Your task to perform on an android device: Open sound settings Image 0: 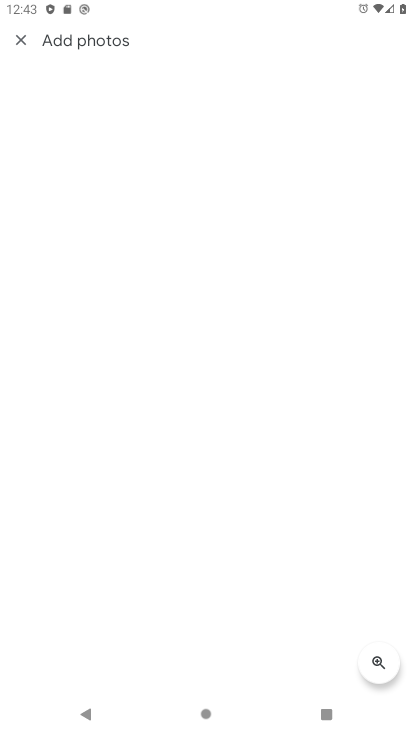
Step 0: press back button
Your task to perform on an android device: Open sound settings Image 1: 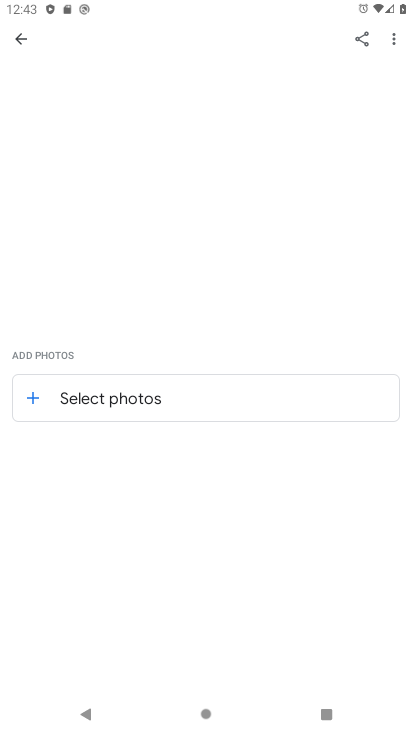
Step 1: press back button
Your task to perform on an android device: Open sound settings Image 2: 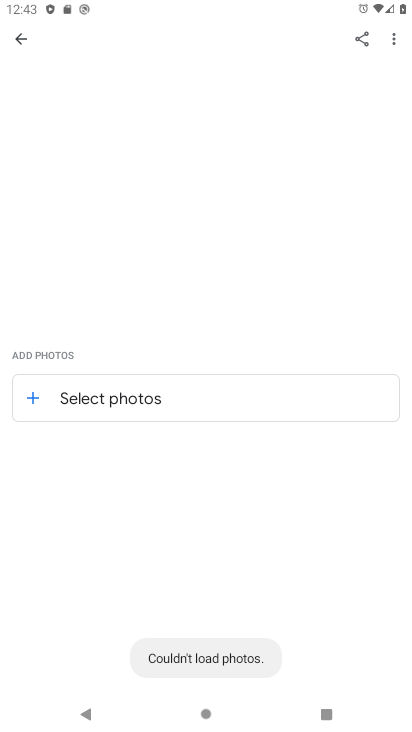
Step 2: press back button
Your task to perform on an android device: Open sound settings Image 3: 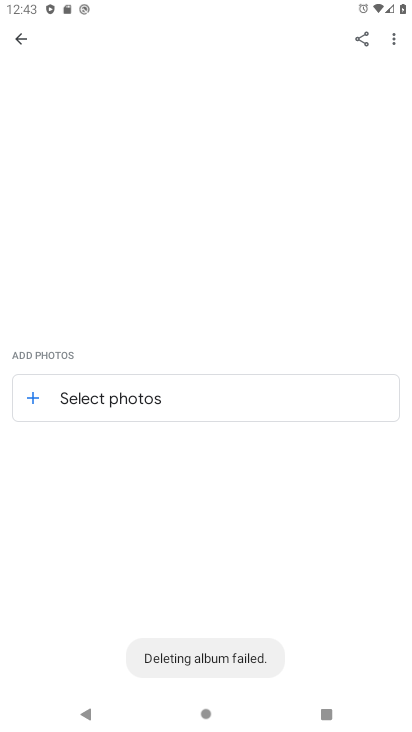
Step 3: press home button
Your task to perform on an android device: Open sound settings Image 4: 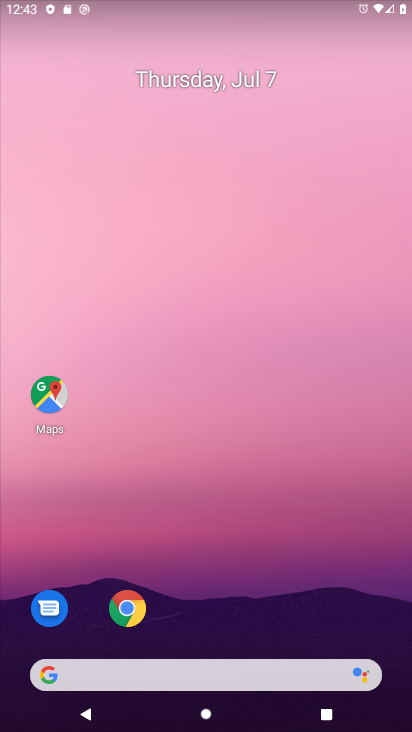
Step 4: drag from (180, 613) to (231, 77)
Your task to perform on an android device: Open sound settings Image 5: 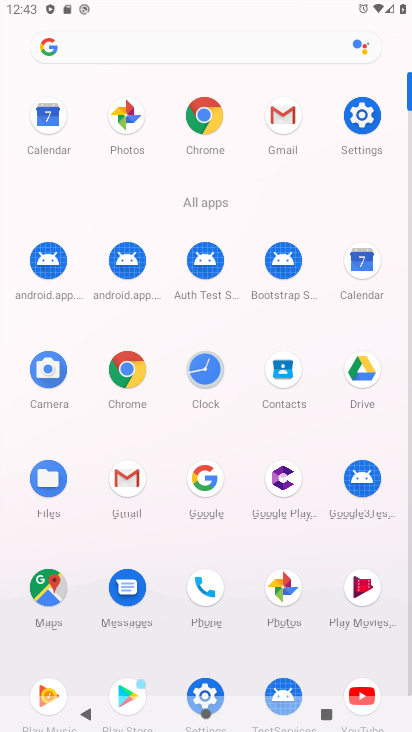
Step 5: click (355, 125)
Your task to perform on an android device: Open sound settings Image 6: 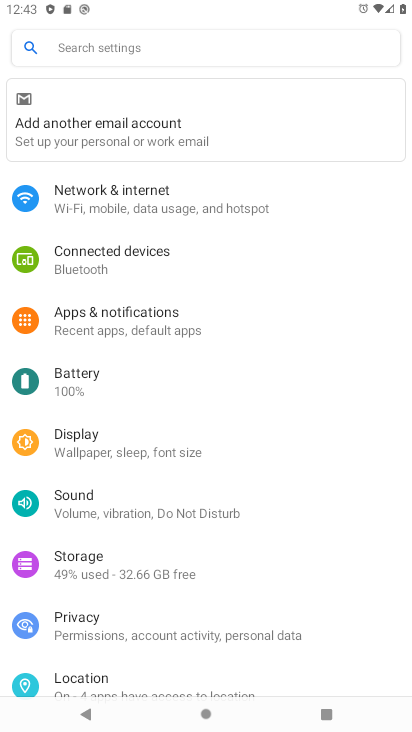
Step 6: click (88, 492)
Your task to perform on an android device: Open sound settings Image 7: 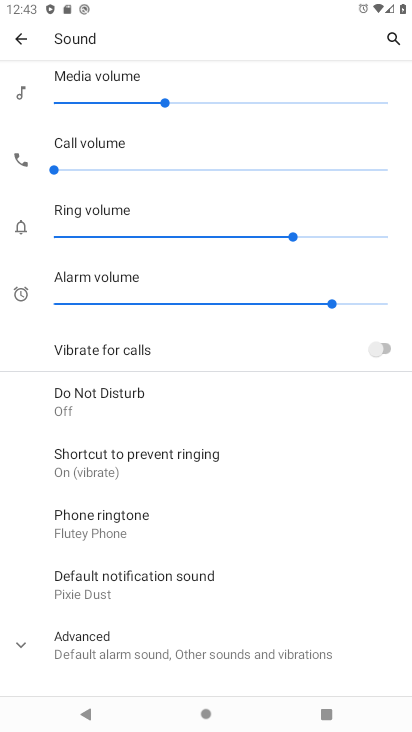
Step 7: task complete